Your task to perform on an android device: Go to sound settings Image 0: 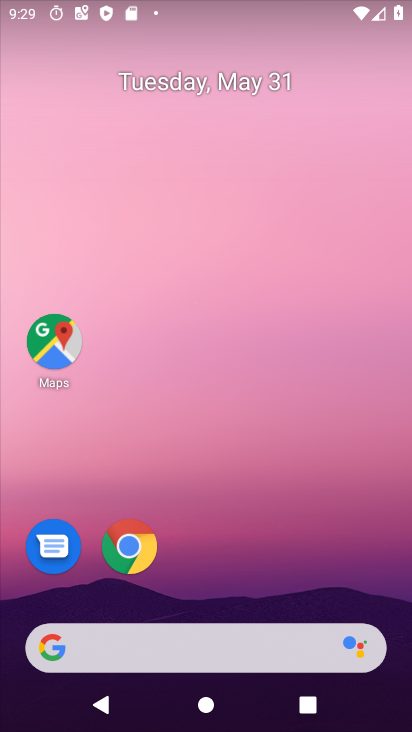
Step 0: drag from (291, 569) to (326, 19)
Your task to perform on an android device: Go to sound settings Image 1: 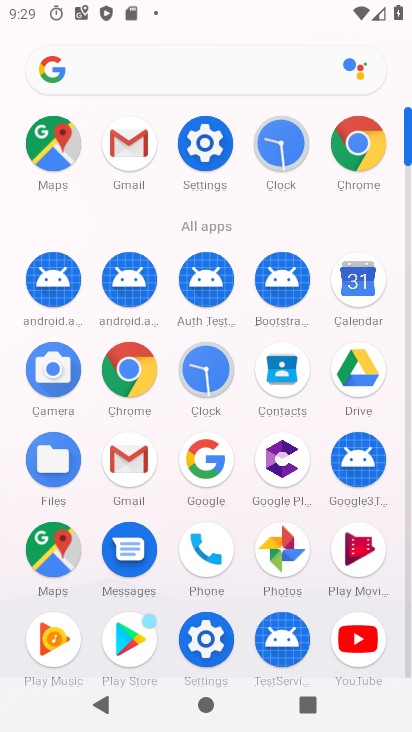
Step 1: click (211, 142)
Your task to perform on an android device: Go to sound settings Image 2: 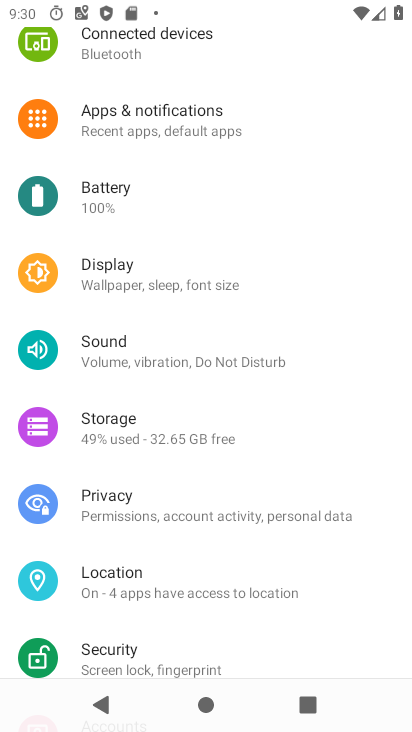
Step 2: click (136, 358)
Your task to perform on an android device: Go to sound settings Image 3: 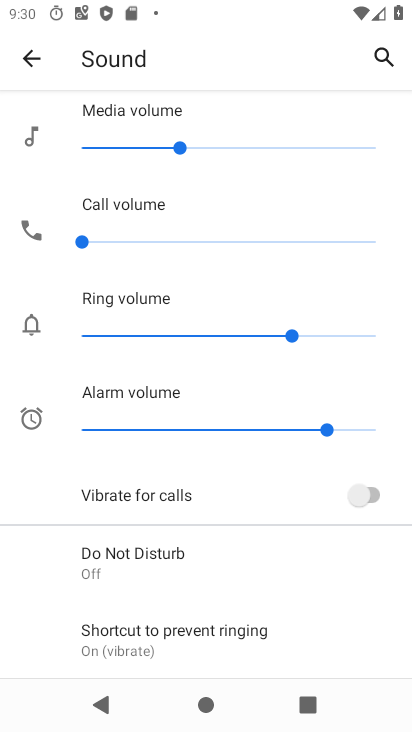
Step 3: task complete